Your task to perform on an android device: Go to Wikipedia Image 0: 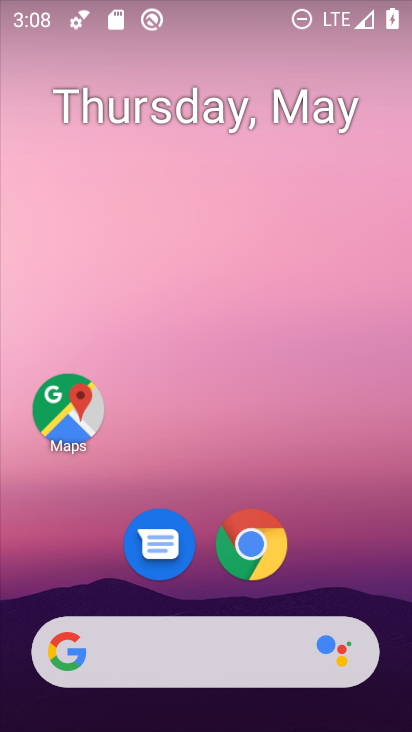
Step 0: click (247, 565)
Your task to perform on an android device: Go to Wikipedia Image 1: 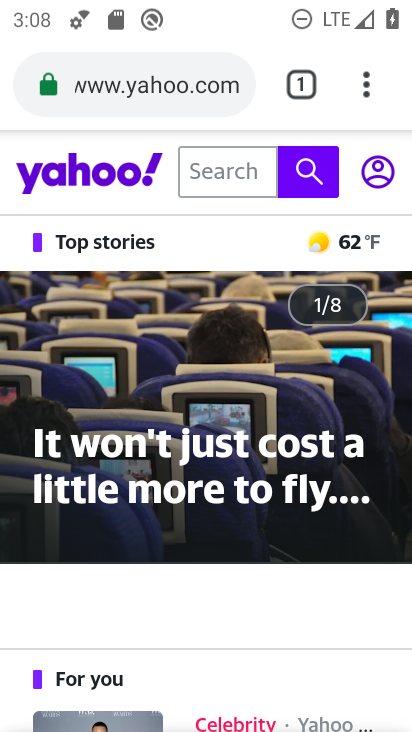
Step 1: drag from (369, 91) to (291, 171)
Your task to perform on an android device: Go to Wikipedia Image 2: 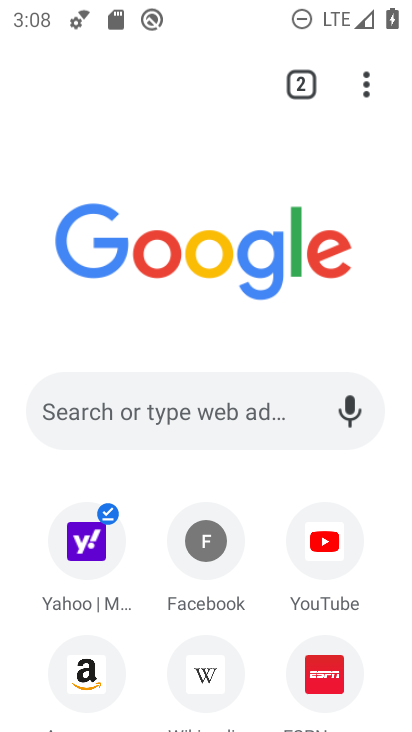
Step 2: drag from (119, 660) to (169, 453)
Your task to perform on an android device: Go to Wikipedia Image 3: 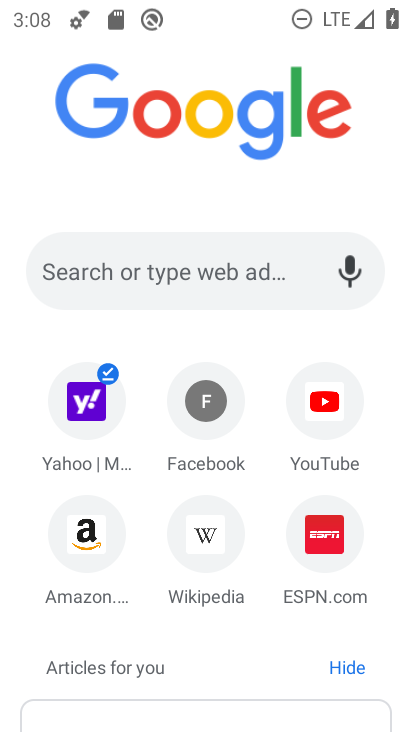
Step 3: click (217, 526)
Your task to perform on an android device: Go to Wikipedia Image 4: 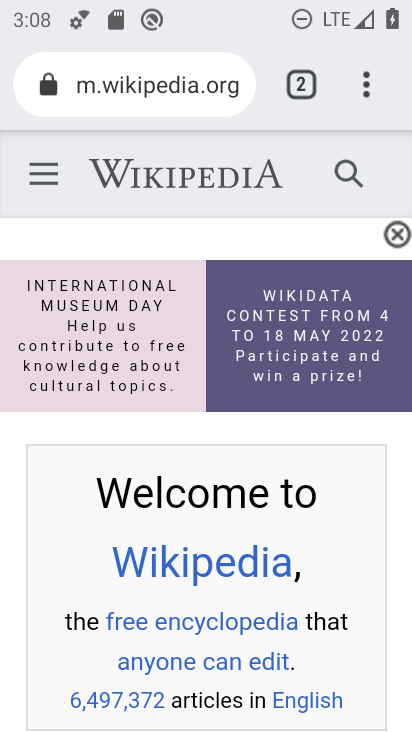
Step 4: task complete